Your task to perform on an android device: Go to Amazon Image 0: 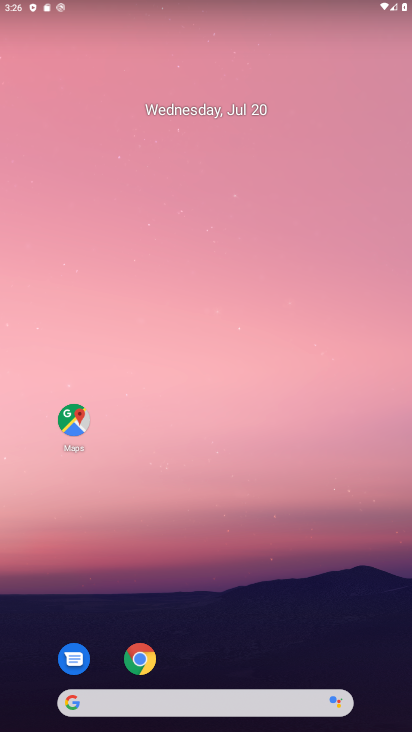
Step 0: click (135, 654)
Your task to perform on an android device: Go to Amazon Image 1: 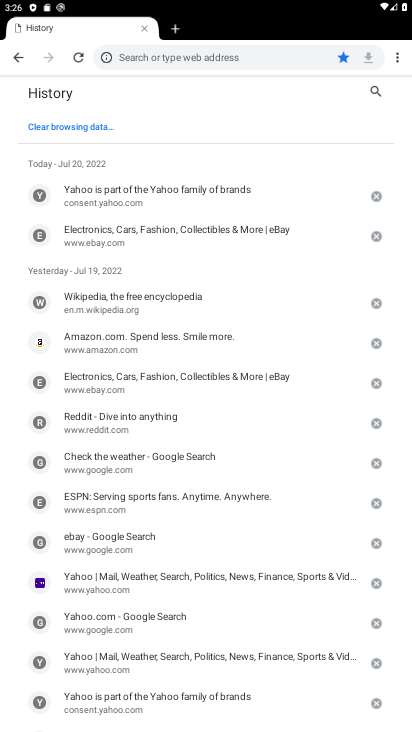
Step 1: click (172, 62)
Your task to perform on an android device: Go to Amazon Image 2: 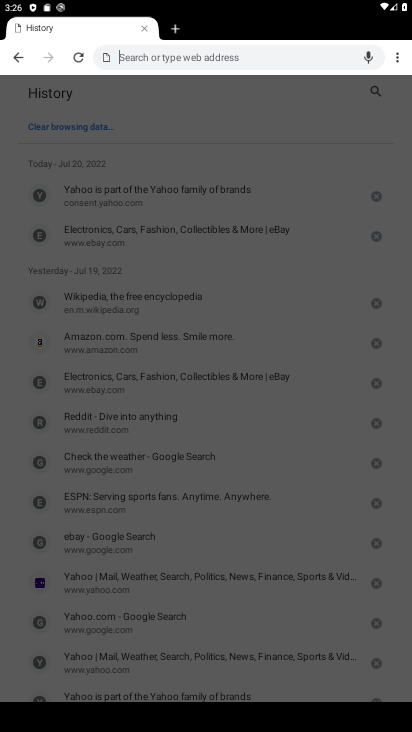
Step 2: type "www.amazon.com"
Your task to perform on an android device: Go to Amazon Image 3: 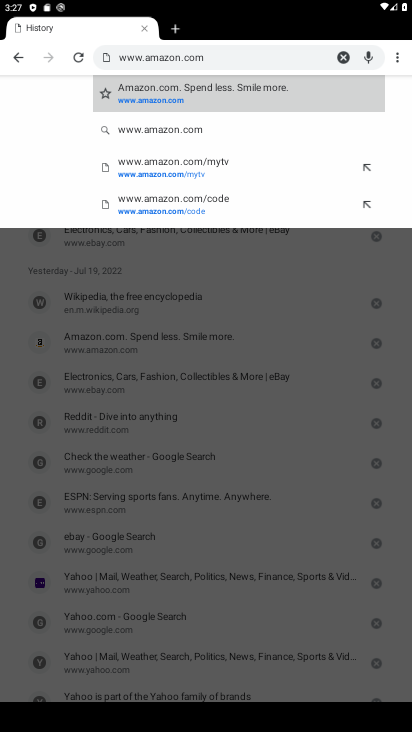
Step 3: click (167, 101)
Your task to perform on an android device: Go to Amazon Image 4: 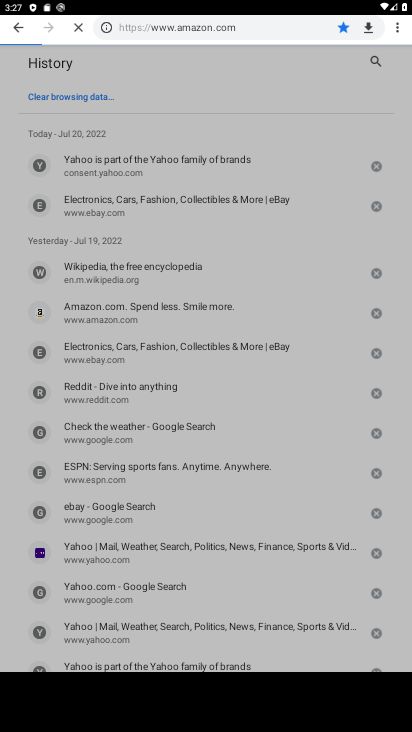
Step 4: click (167, 101)
Your task to perform on an android device: Go to Amazon Image 5: 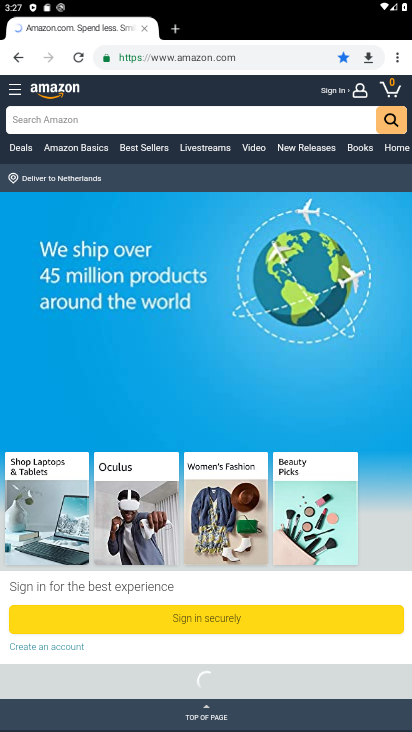
Step 5: task complete